Your task to perform on an android device: Add amazon basics triple a to the cart on bestbuy, then select checkout. Image 0: 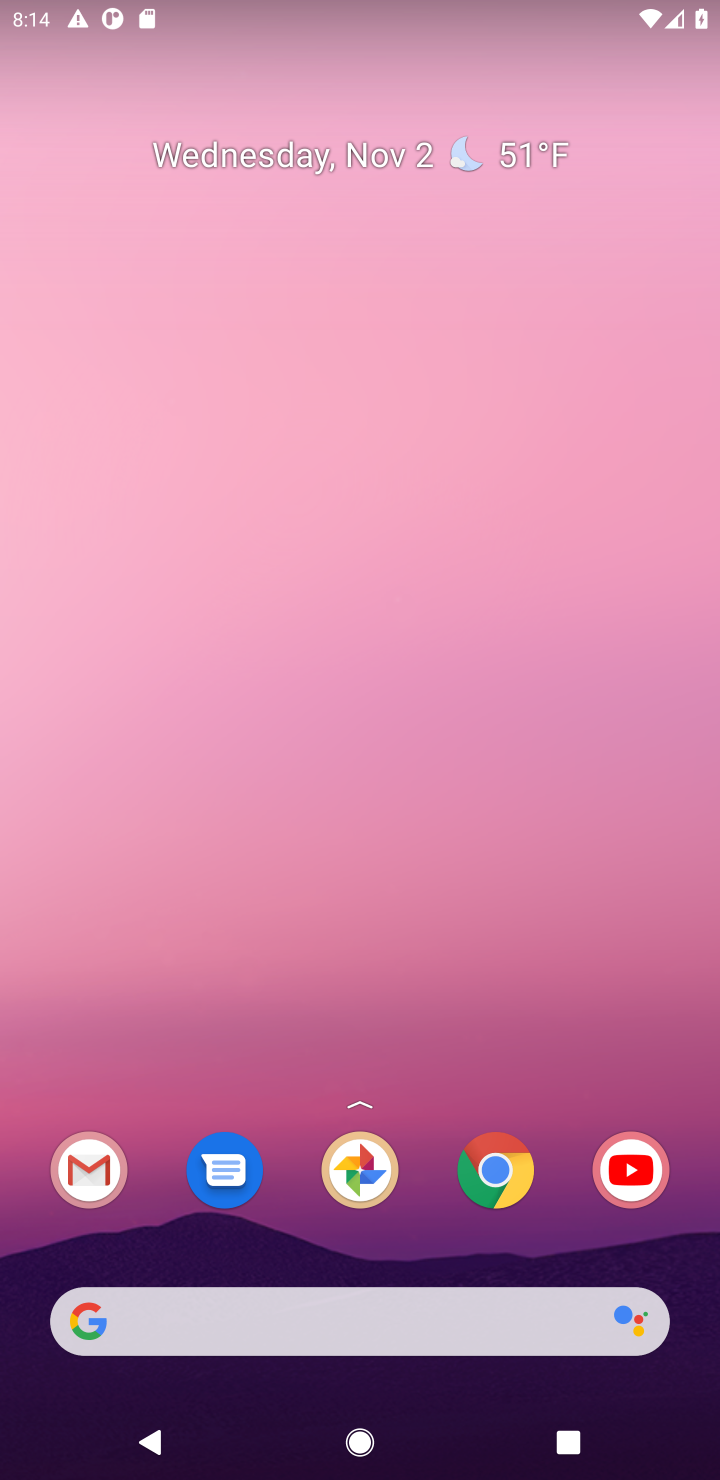
Step 0: click (516, 1183)
Your task to perform on an android device: Add amazon basics triple a to the cart on bestbuy, then select checkout. Image 1: 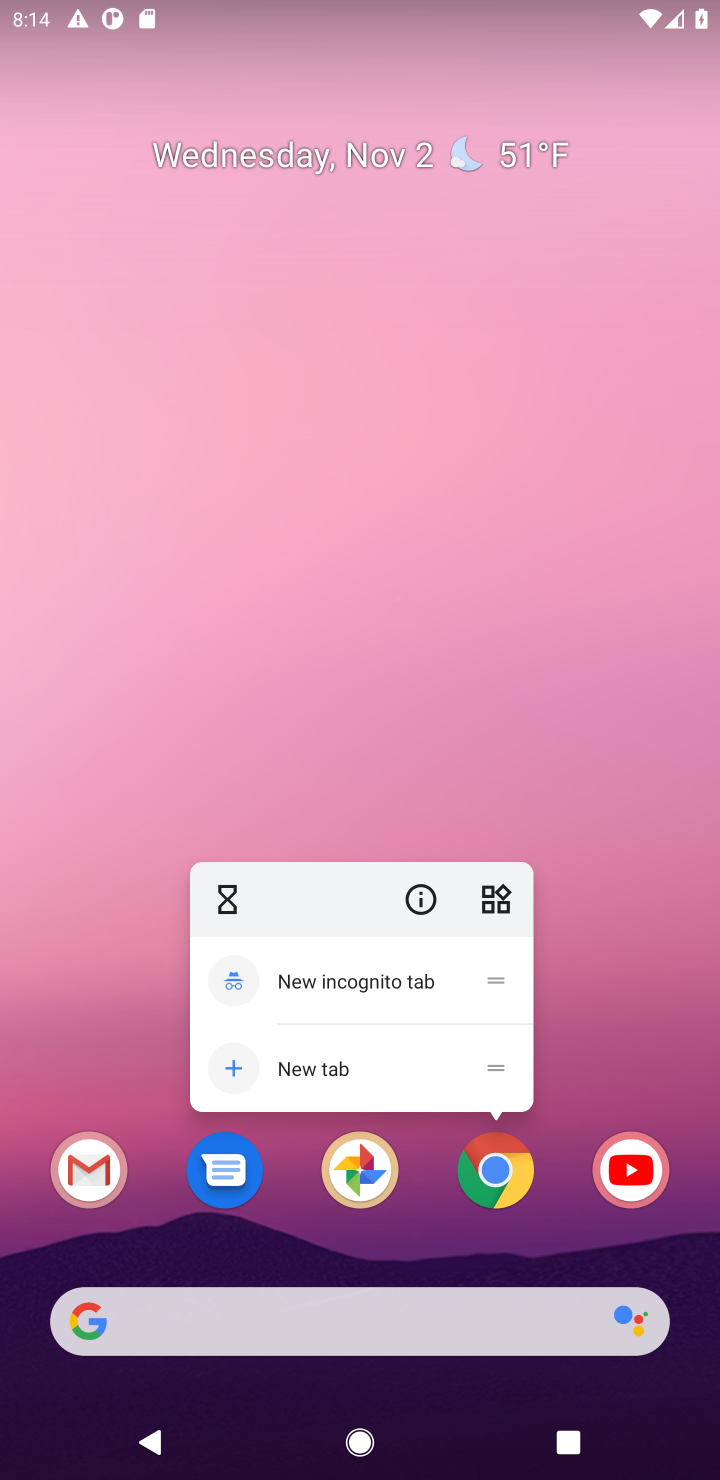
Step 1: click (500, 1188)
Your task to perform on an android device: Add amazon basics triple a to the cart on bestbuy, then select checkout. Image 2: 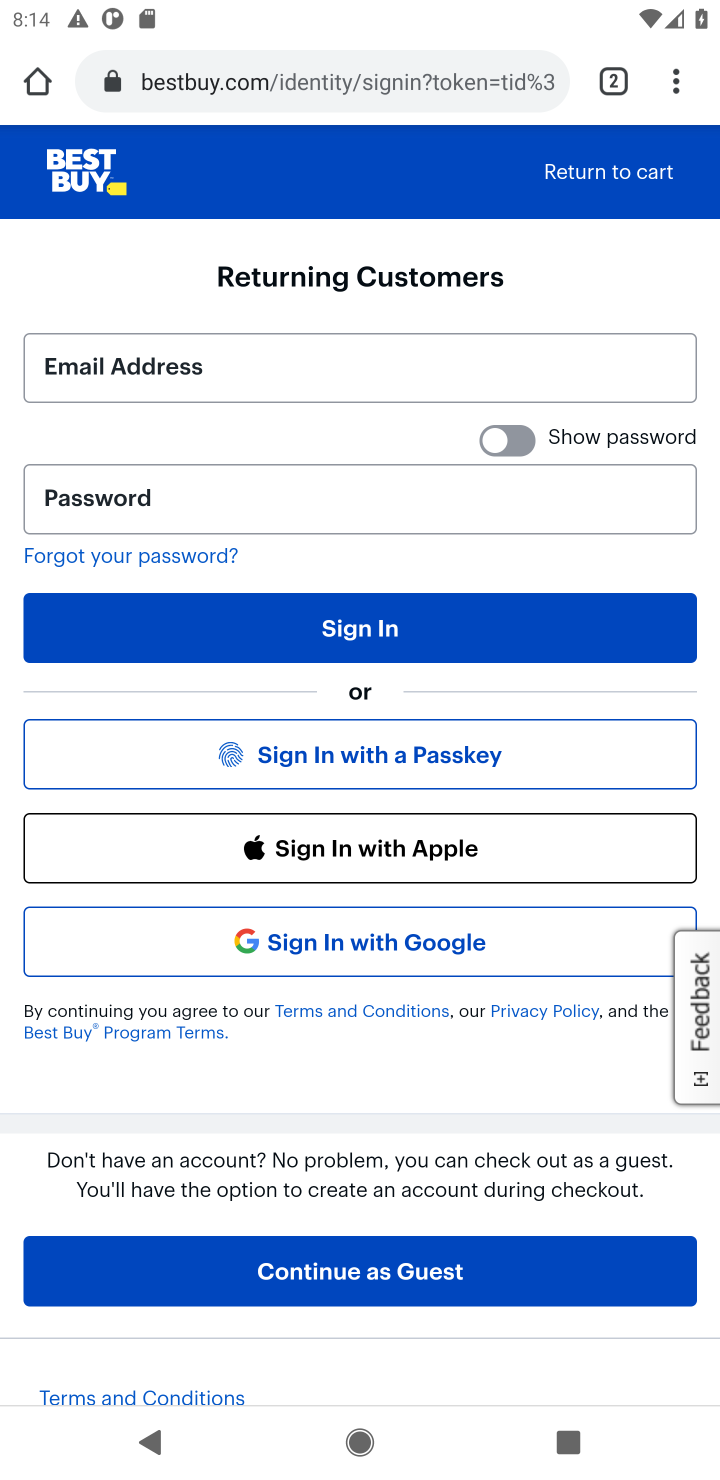
Step 2: click (290, 71)
Your task to perform on an android device: Add amazon basics triple a to the cart on bestbuy, then select checkout. Image 3: 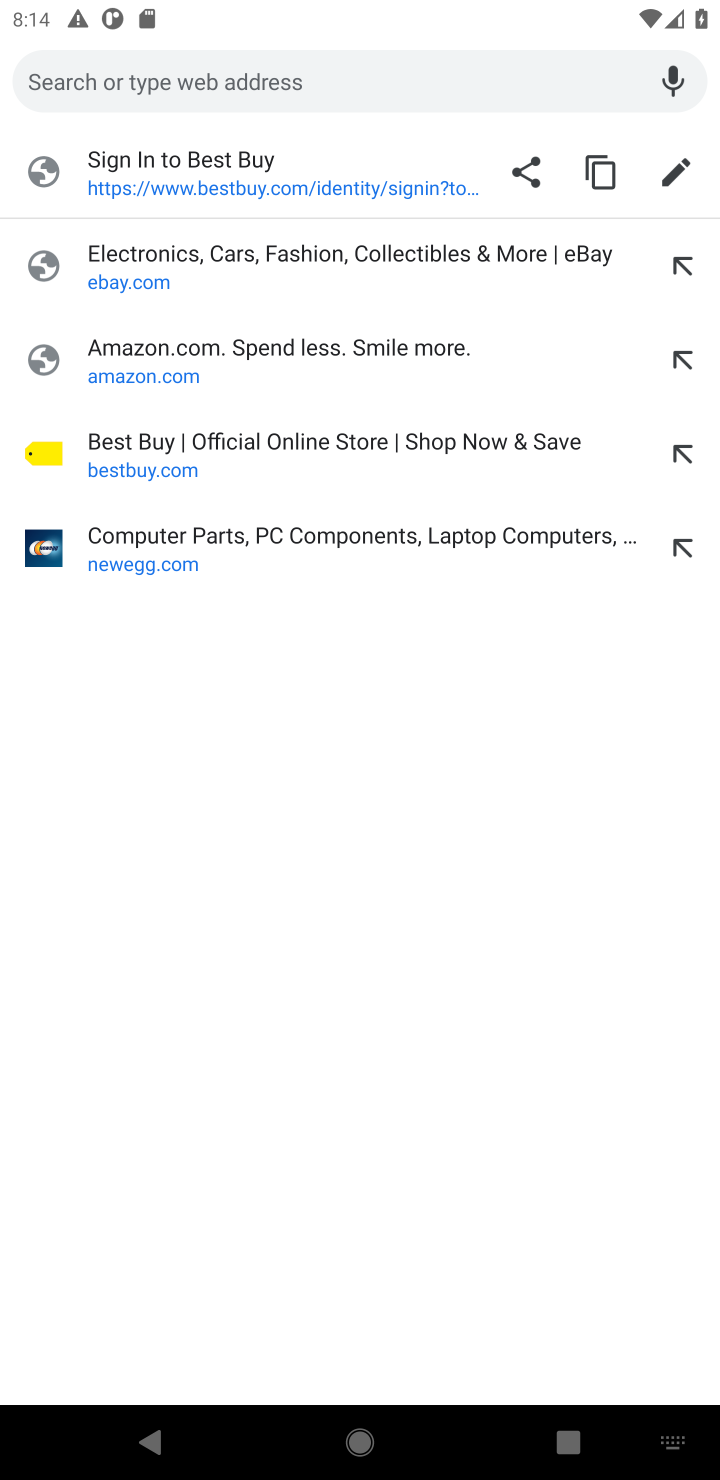
Step 3: type "bestbuy"
Your task to perform on an android device: Add amazon basics triple a to the cart on bestbuy, then select checkout. Image 4: 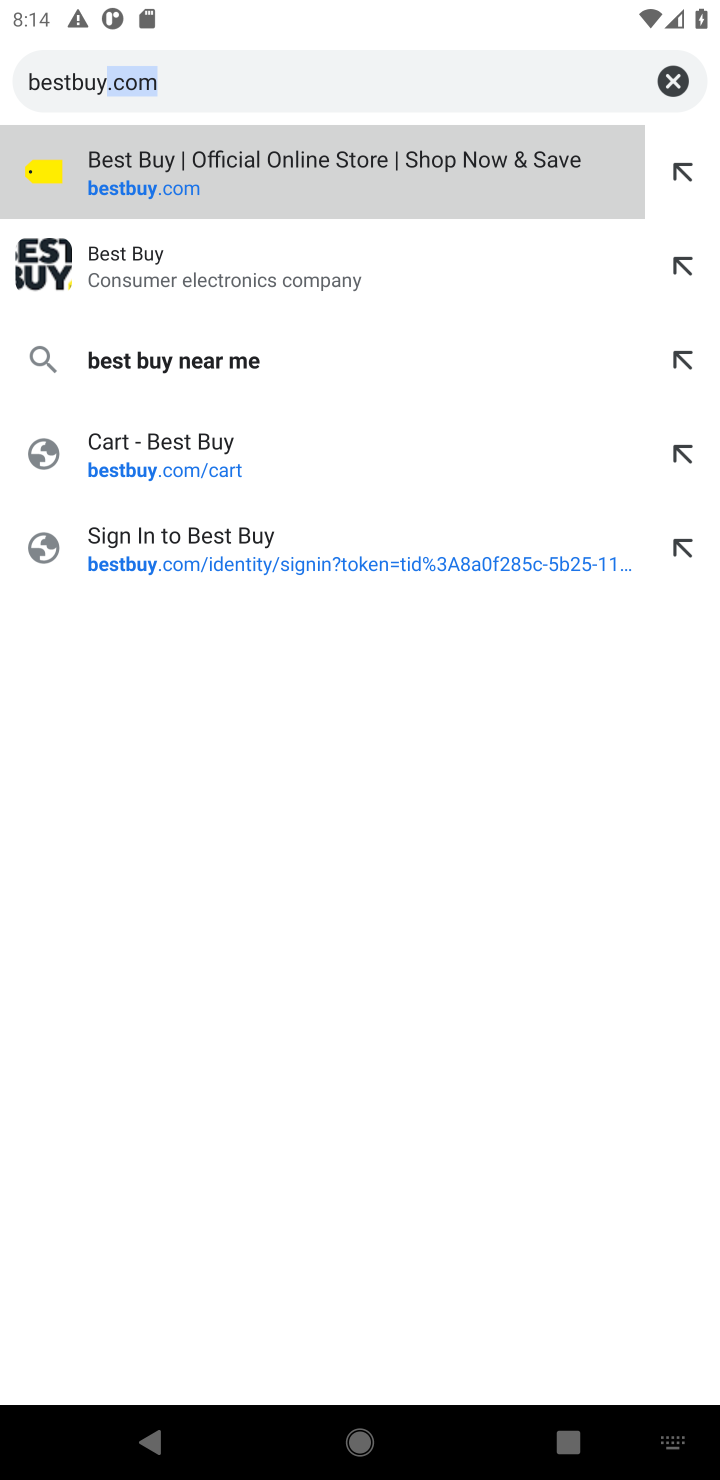
Step 4: press enter
Your task to perform on an android device: Add amazon basics triple a to the cart on bestbuy, then select checkout. Image 5: 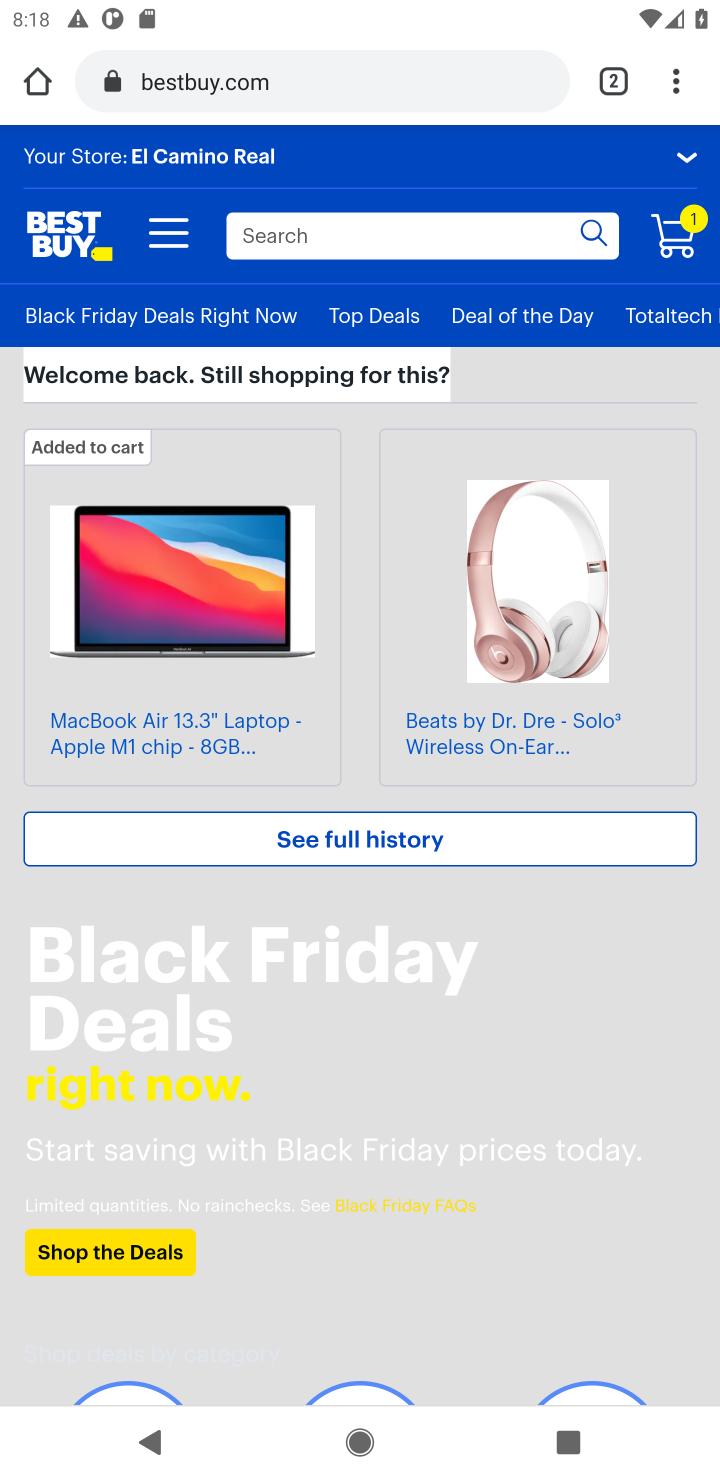
Step 5: click (399, 224)
Your task to perform on an android device: Add amazon basics triple a to the cart on bestbuy, then select checkout. Image 6: 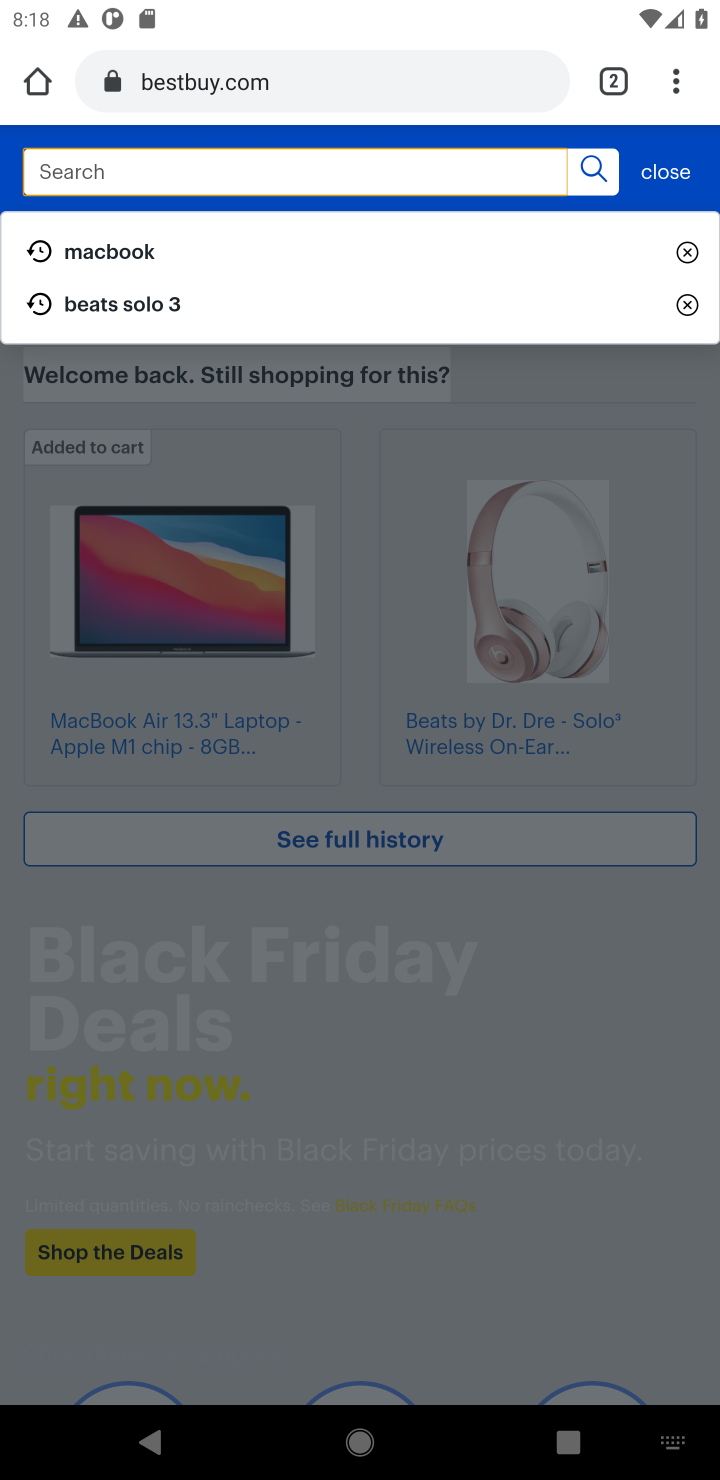
Step 6: type "amazon basics triple a"
Your task to perform on an android device: Add amazon basics triple a to the cart on bestbuy, then select checkout. Image 7: 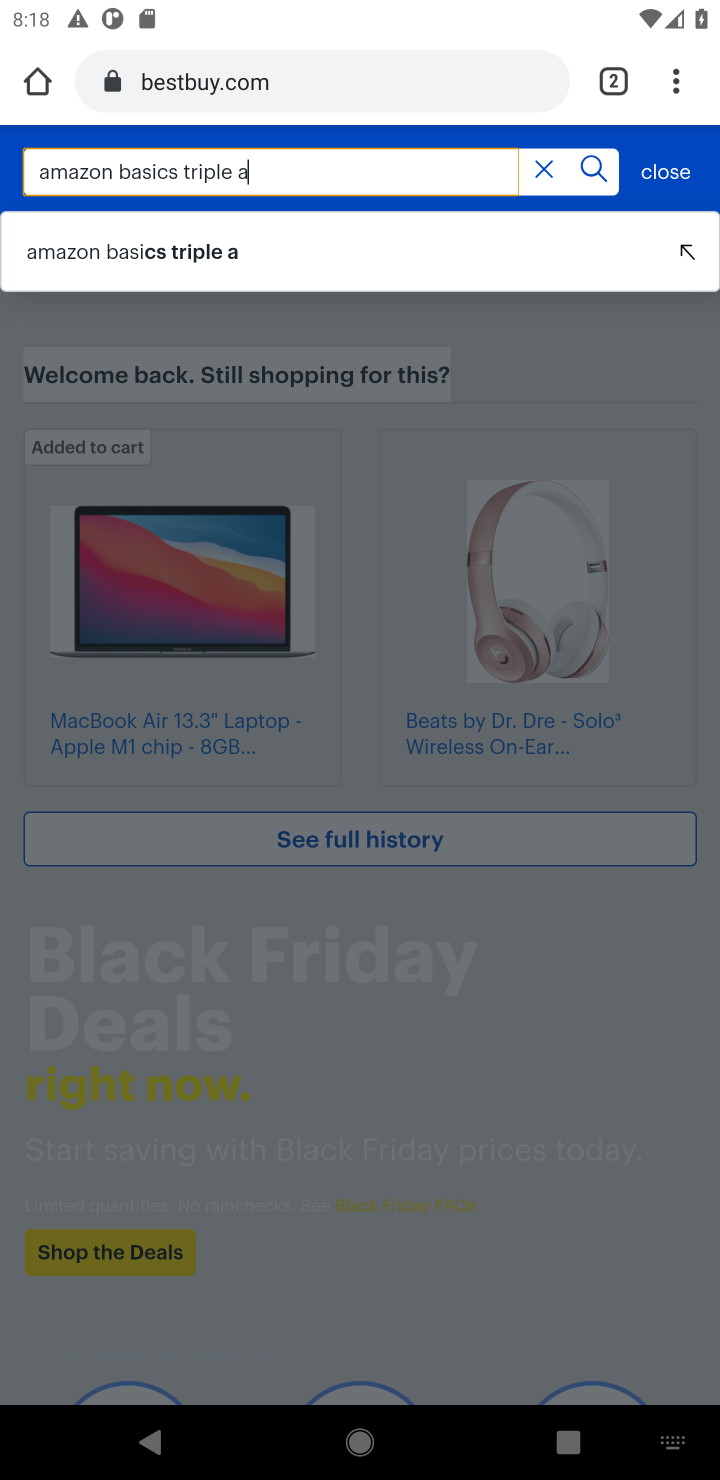
Step 7: type ""
Your task to perform on an android device: Add amazon basics triple a to the cart on bestbuy, then select checkout. Image 8: 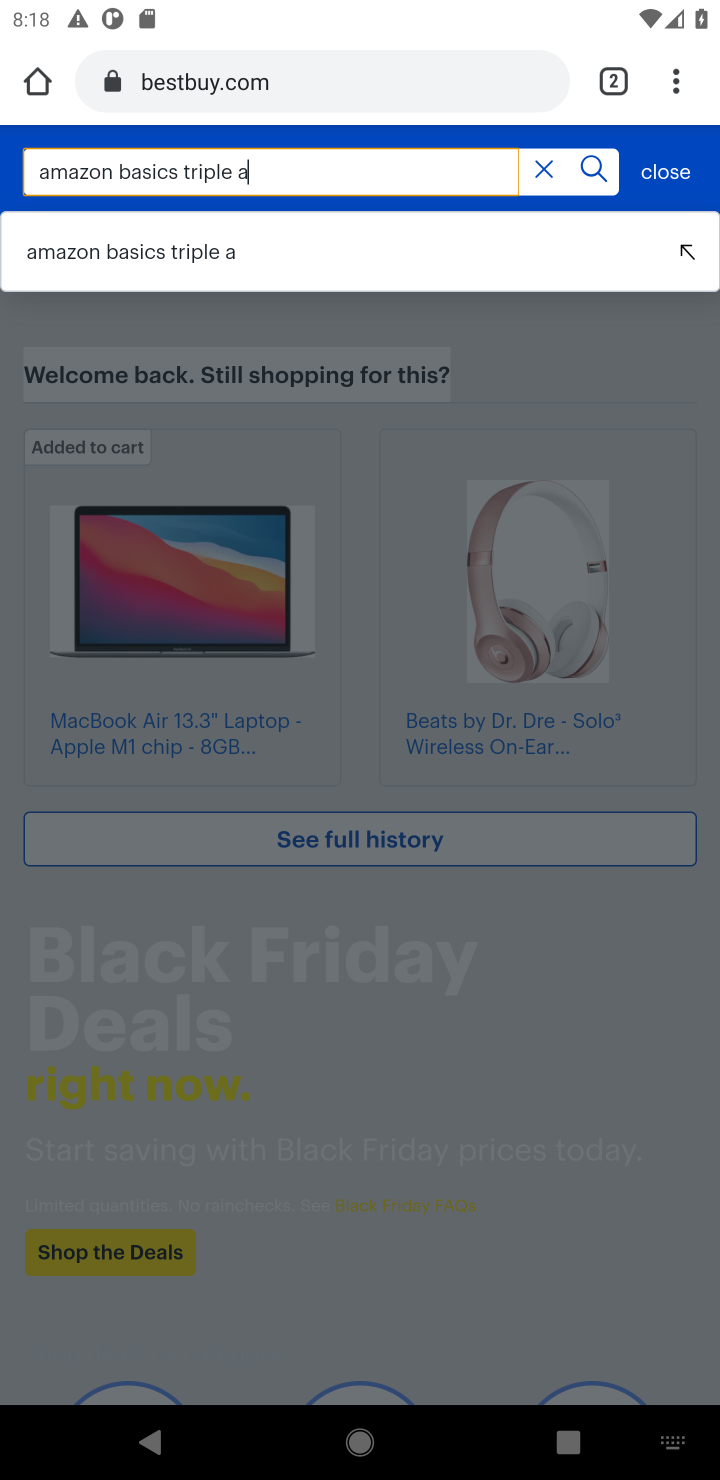
Step 8: press enter
Your task to perform on an android device: Add amazon basics triple a to the cart on bestbuy, then select checkout. Image 9: 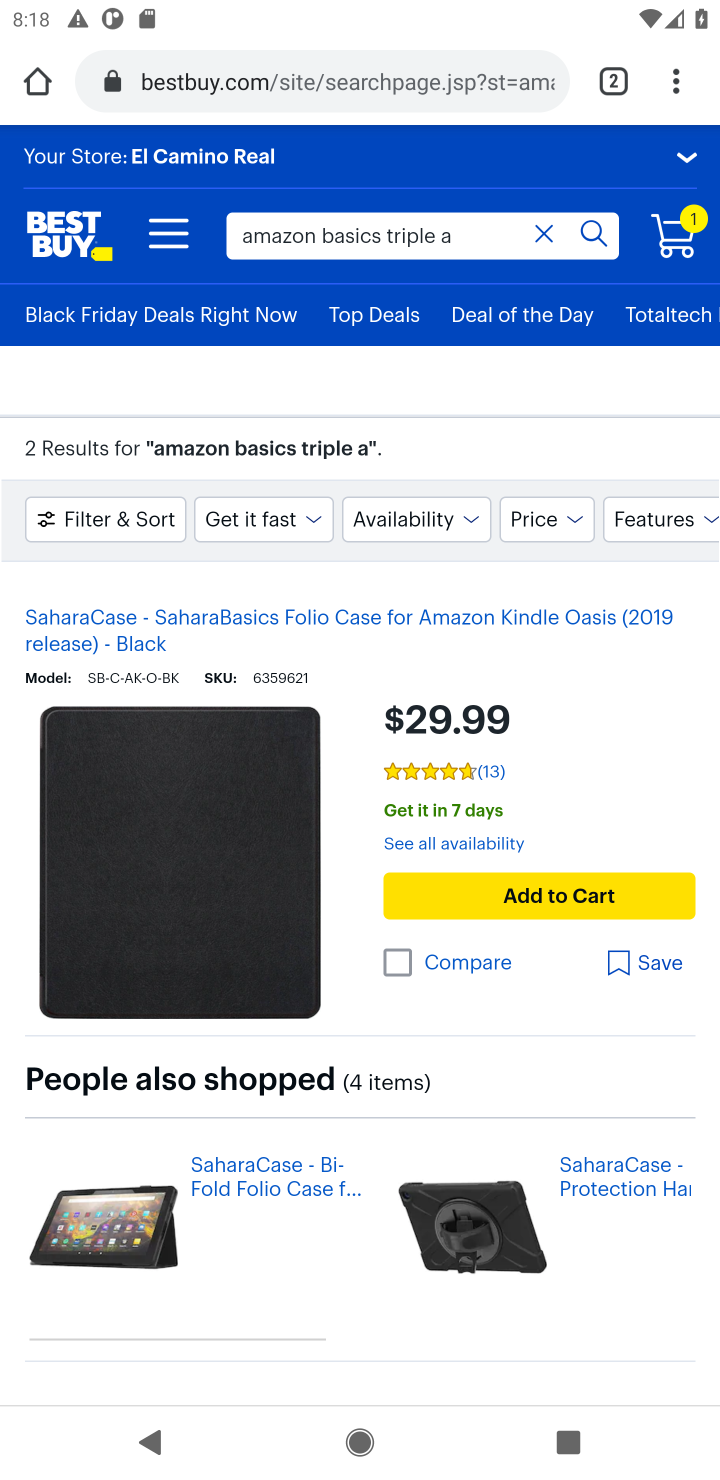
Step 9: task complete